Your task to perform on an android device: turn notification dots on Image 0: 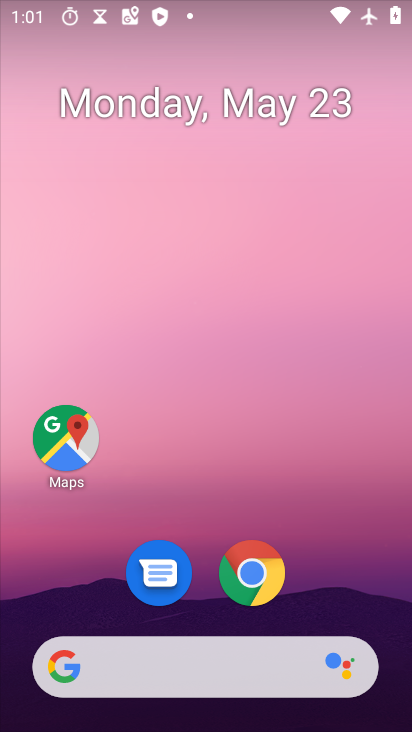
Step 0: drag from (193, 576) to (282, 118)
Your task to perform on an android device: turn notification dots on Image 1: 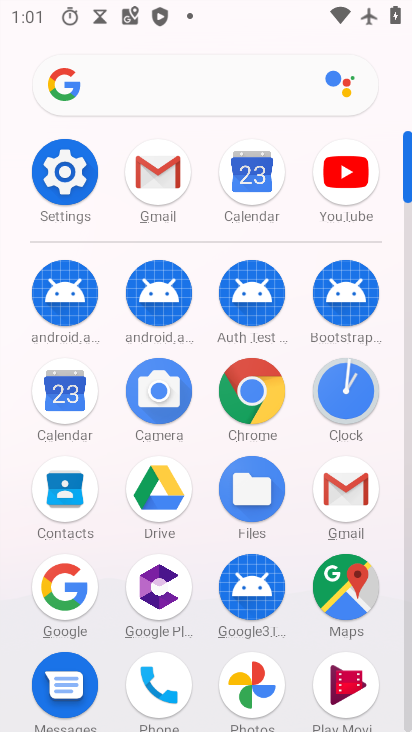
Step 1: click (74, 178)
Your task to perform on an android device: turn notification dots on Image 2: 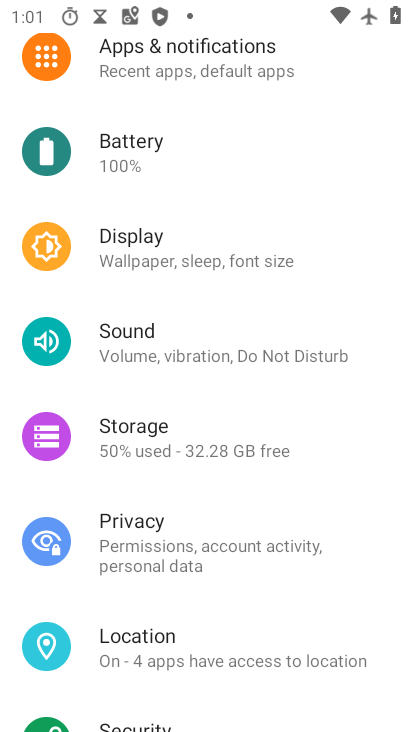
Step 2: click (248, 58)
Your task to perform on an android device: turn notification dots on Image 3: 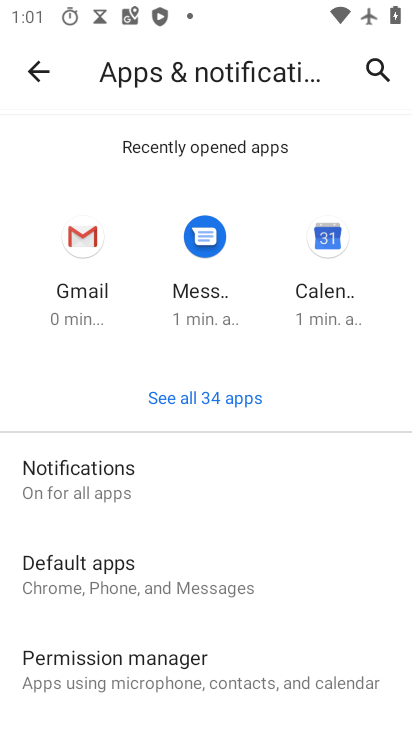
Step 3: click (99, 486)
Your task to perform on an android device: turn notification dots on Image 4: 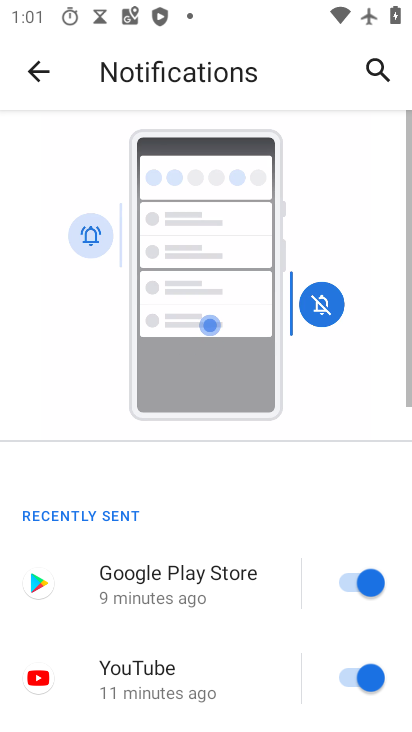
Step 4: drag from (238, 619) to (282, 36)
Your task to perform on an android device: turn notification dots on Image 5: 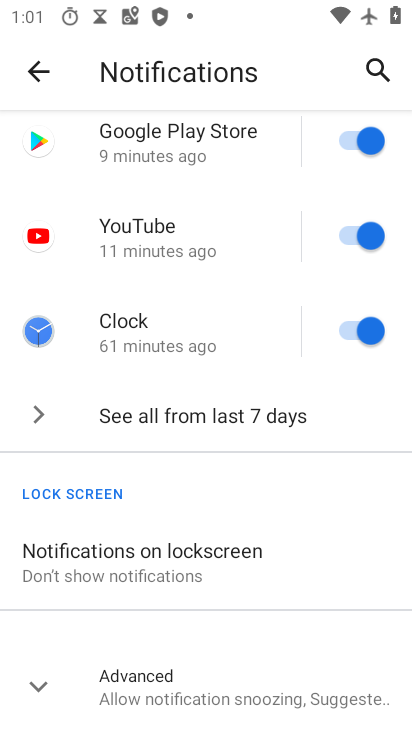
Step 5: click (176, 687)
Your task to perform on an android device: turn notification dots on Image 6: 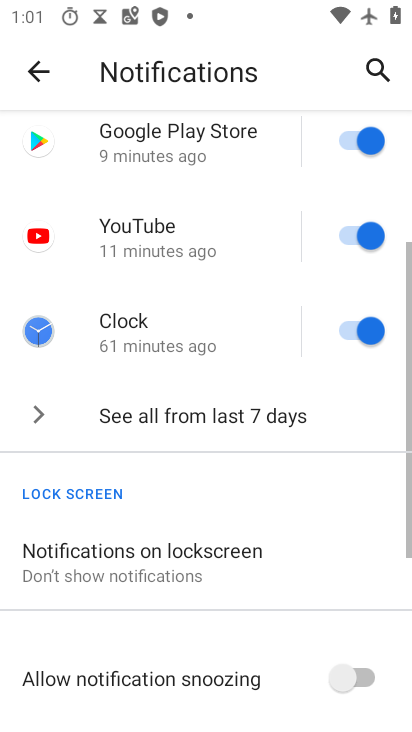
Step 6: task complete